Your task to perform on an android device: check storage Image 0: 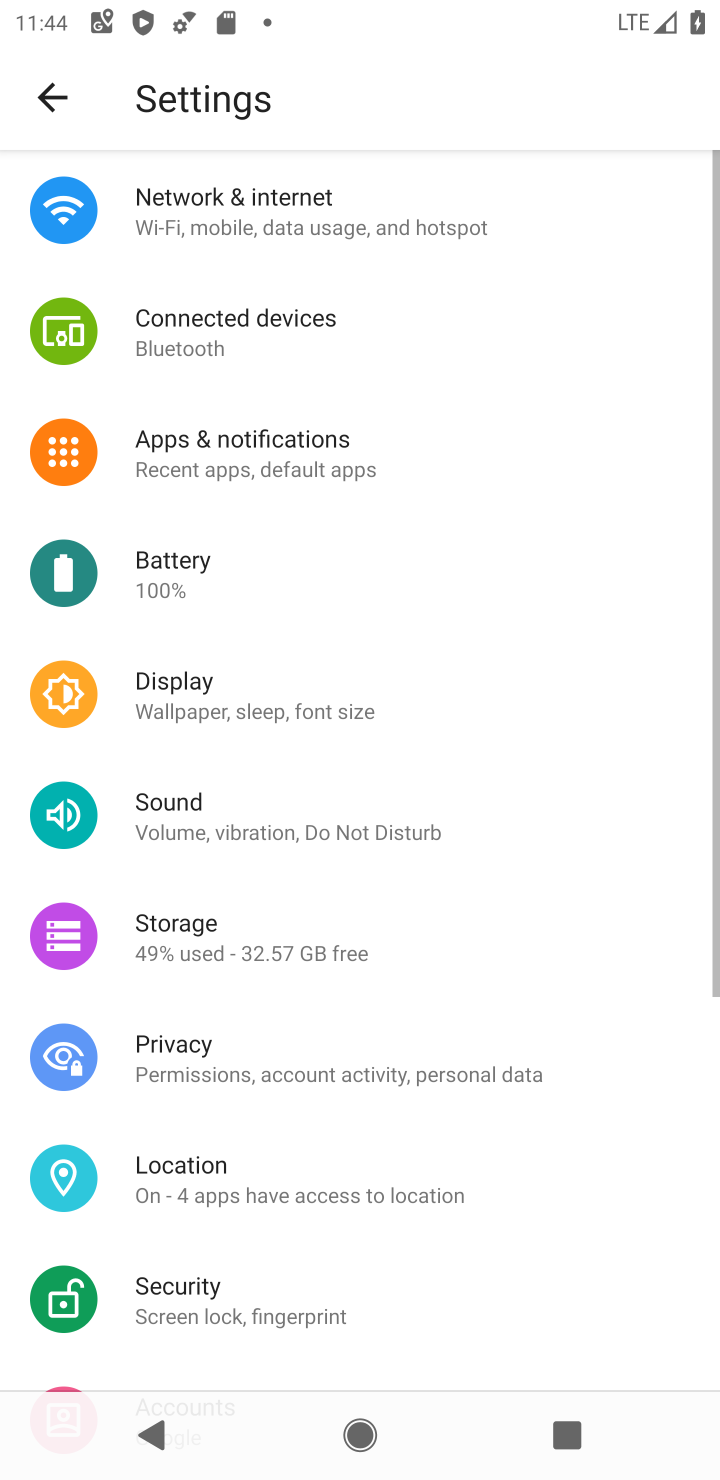
Step 0: press home button
Your task to perform on an android device: check storage Image 1: 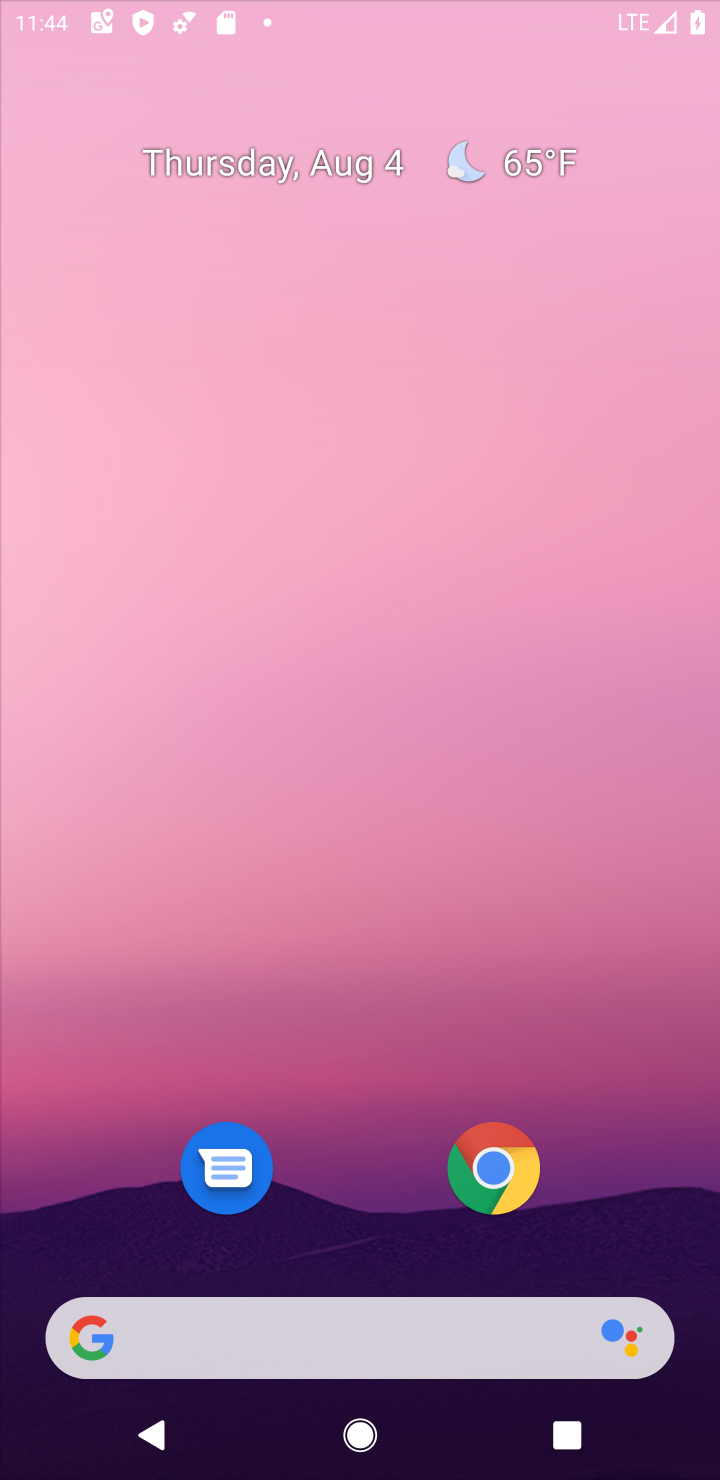
Step 1: drag from (670, 1326) to (447, 31)
Your task to perform on an android device: check storage Image 2: 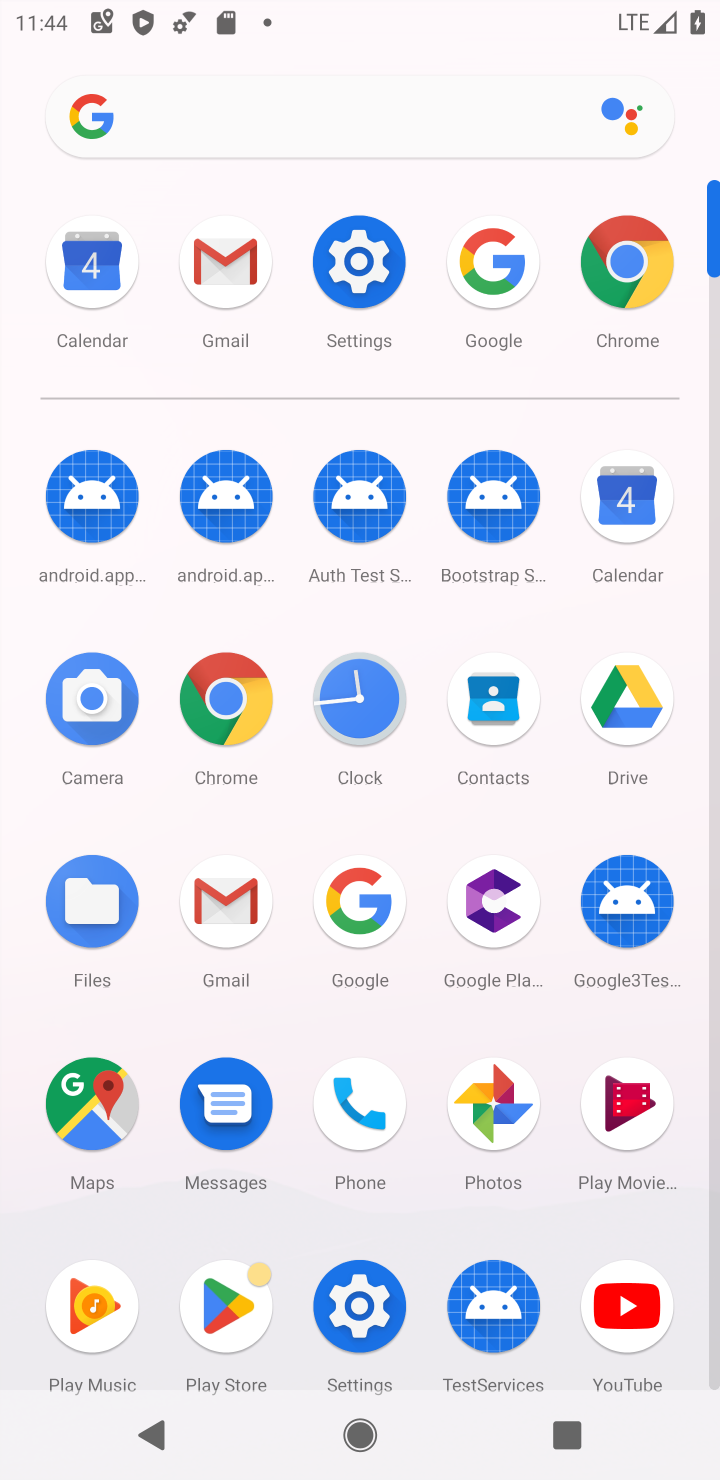
Step 2: click (371, 1317)
Your task to perform on an android device: check storage Image 3: 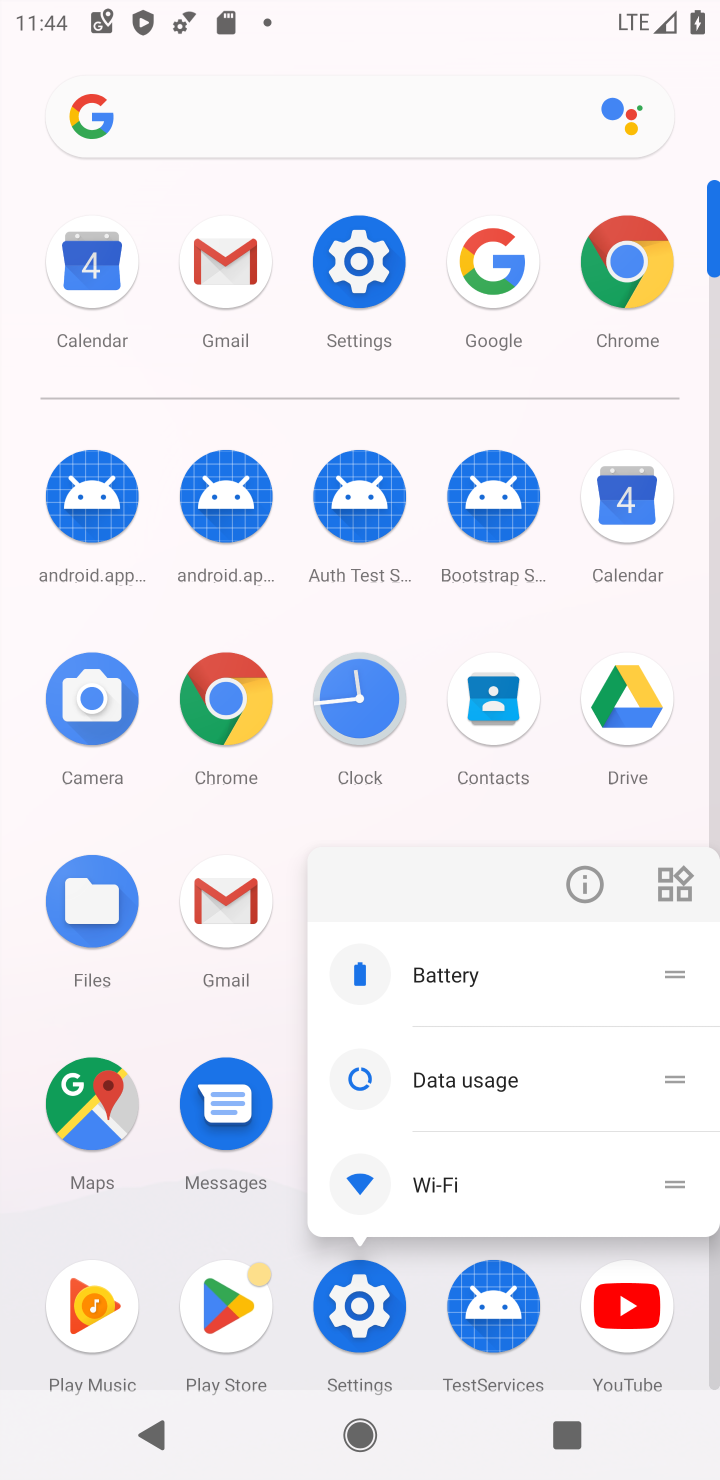
Step 3: click (371, 1317)
Your task to perform on an android device: check storage Image 4: 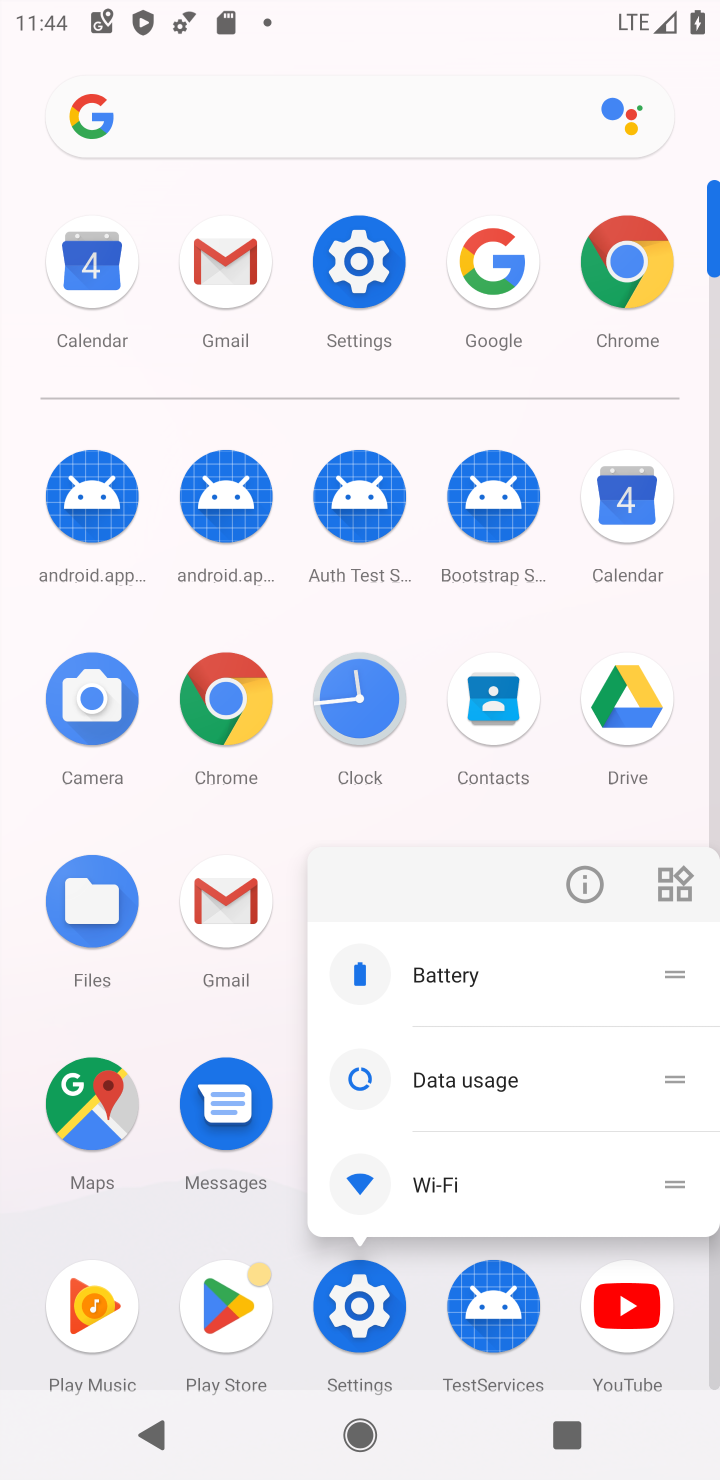
Step 4: click (364, 1295)
Your task to perform on an android device: check storage Image 5: 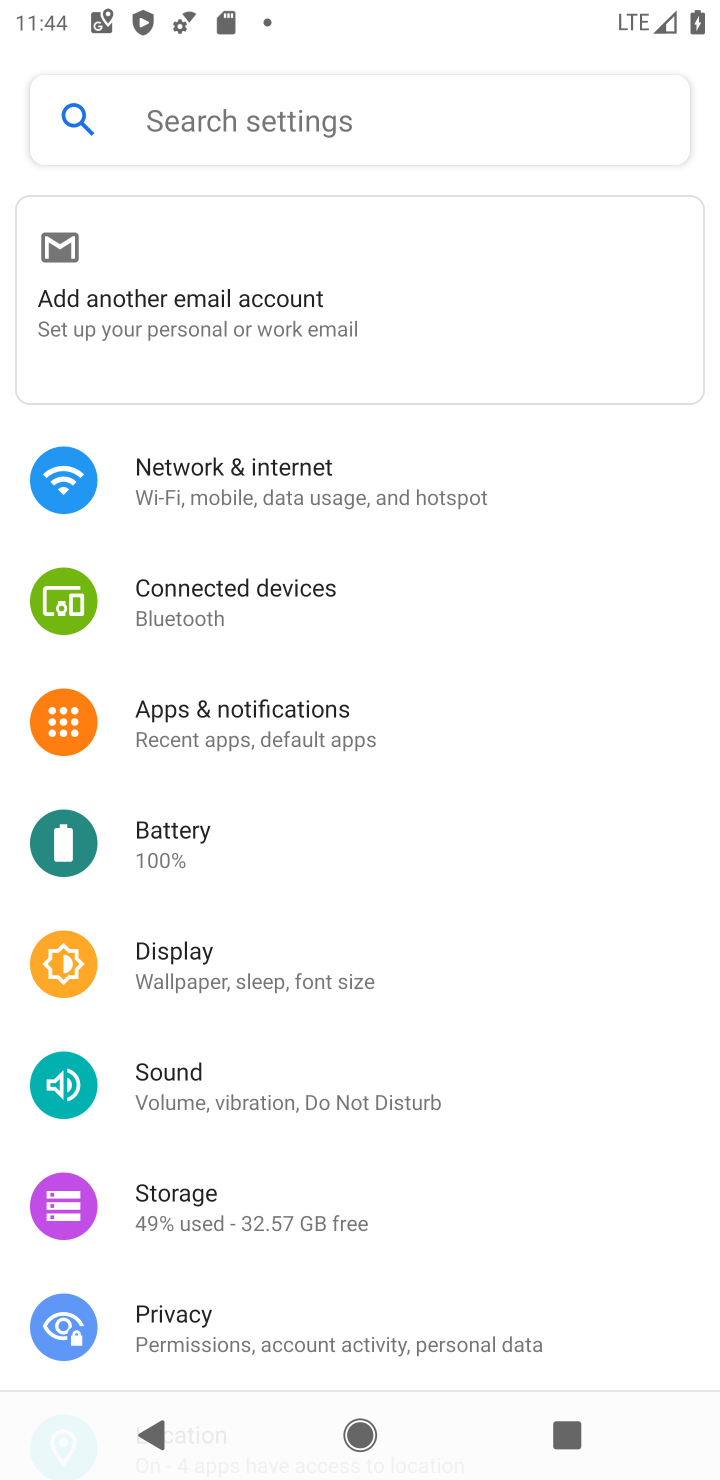
Step 5: click (175, 1203)
Your task to perform on an android device: check storage Image 6: 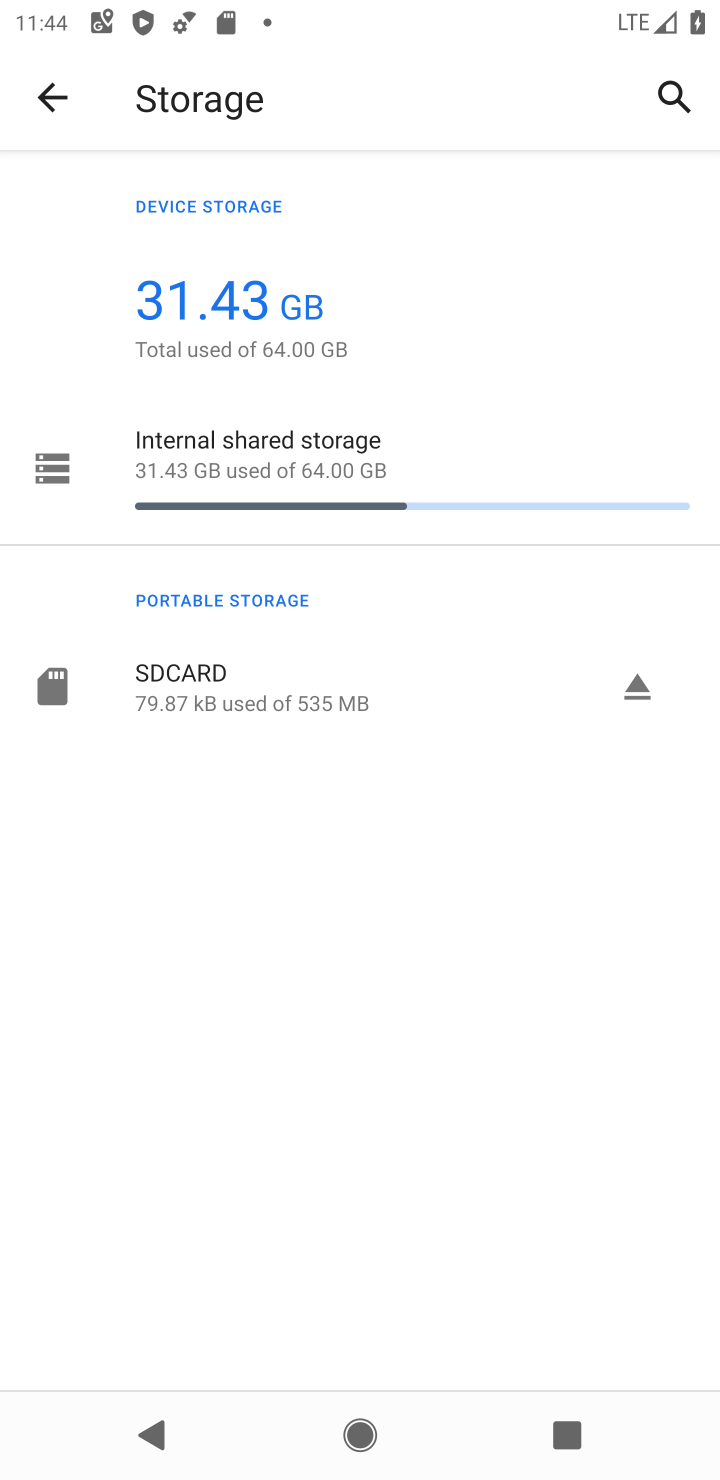
Step 6: click (198, 453)
Your task to perform on an android device: check storage Image 7: 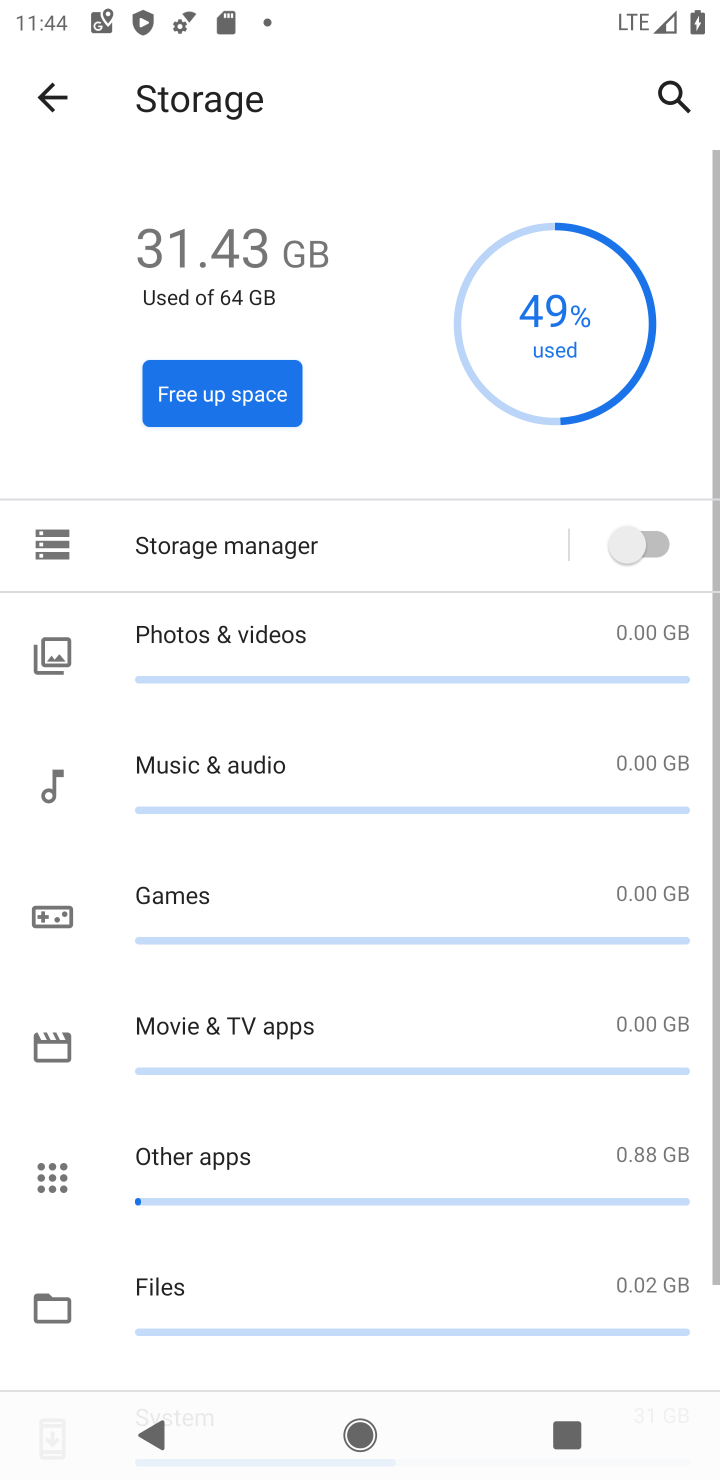
Step 7: task complete